Your task to perform on an android device: change the upload size in google photos Image 0: 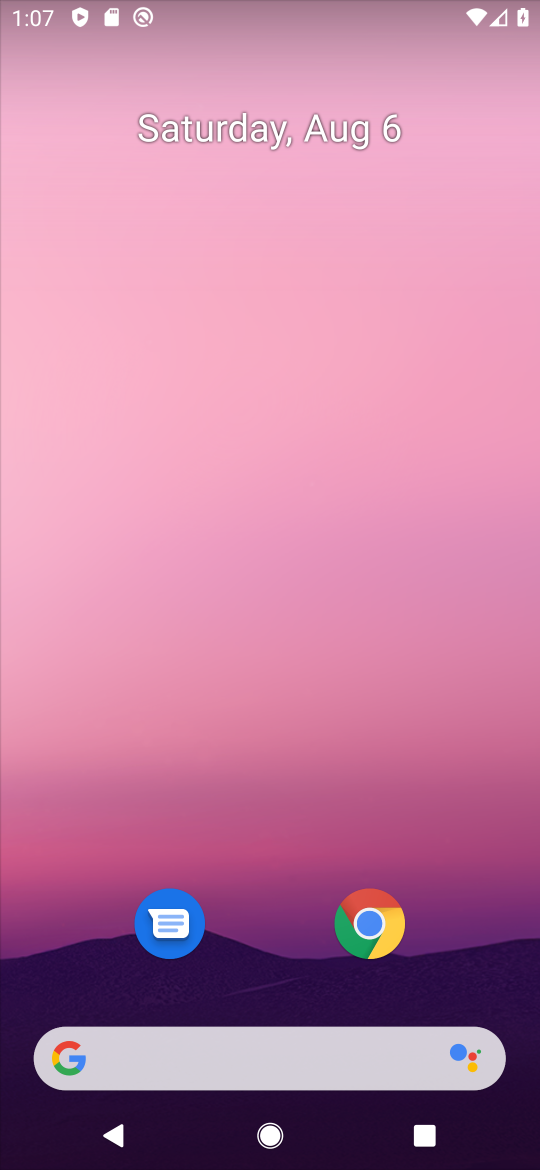
Step 0: drag from (261, 936) to (348, 280)
Your task to perform on an android device: change the upload size in google photos Image 1: 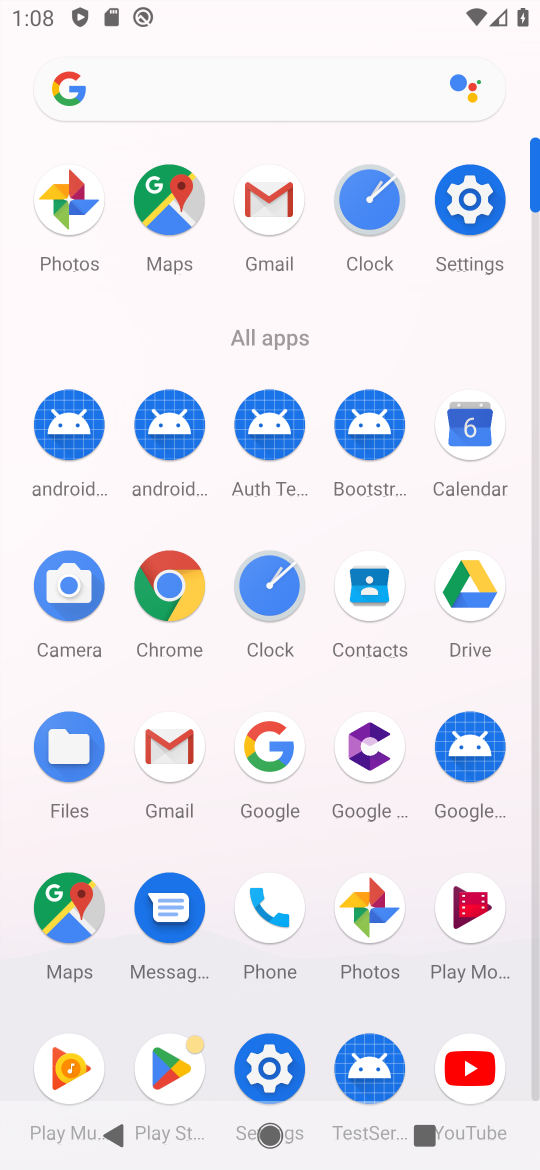
Step 1: click (384, 928)
Your task to perform on an android device: change the upload size in google photos Image 2: 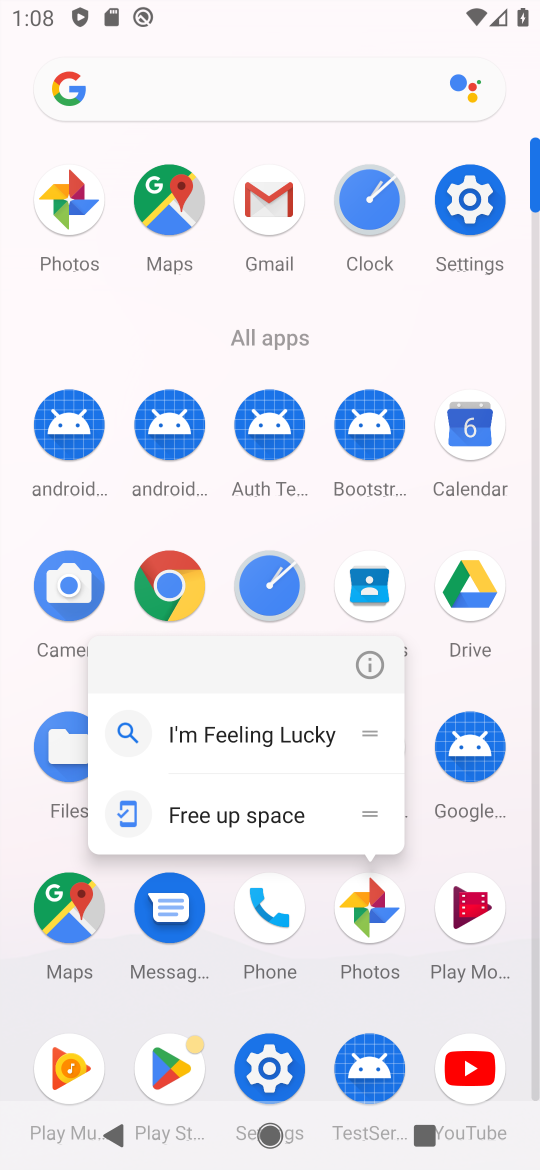
Step 2: click (358, 665)
Your task to perform on an android device: change the upload size in google photos Image 3: 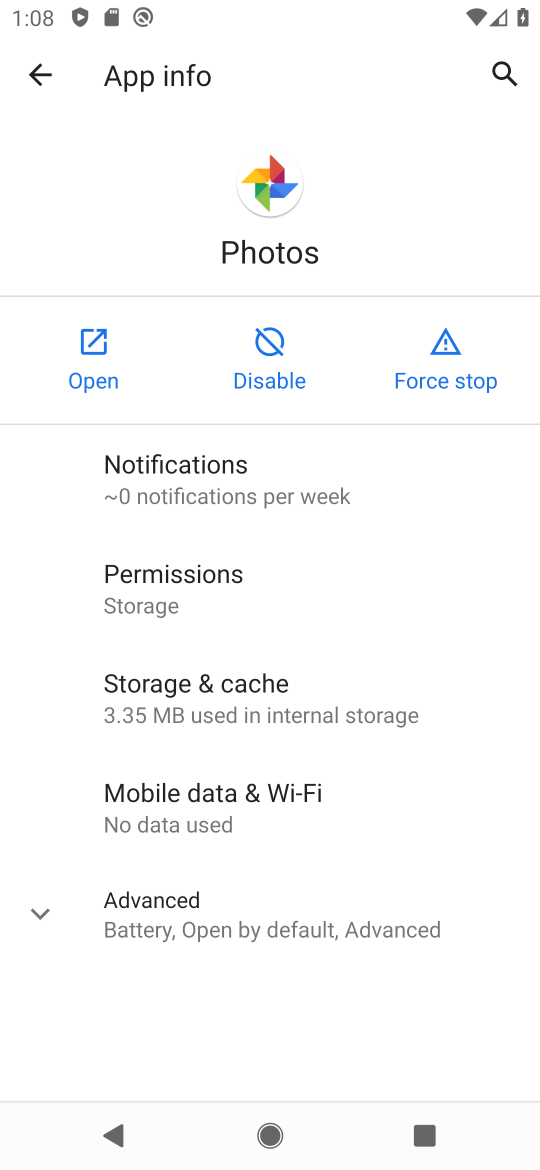
Step 3: click (98, 368)
Your task to perform on an android device: change the upload size in google photos Image 4: 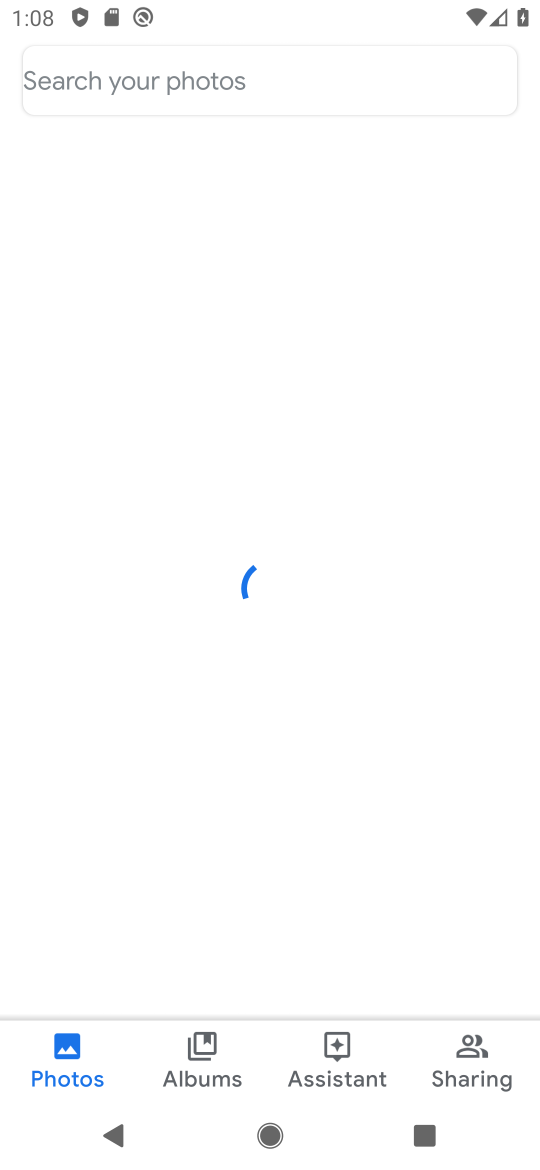
Step 4: drag from (276, 887) to (251, 431)
Your task to perform on an android device: change the upload size in google photos Image 5: 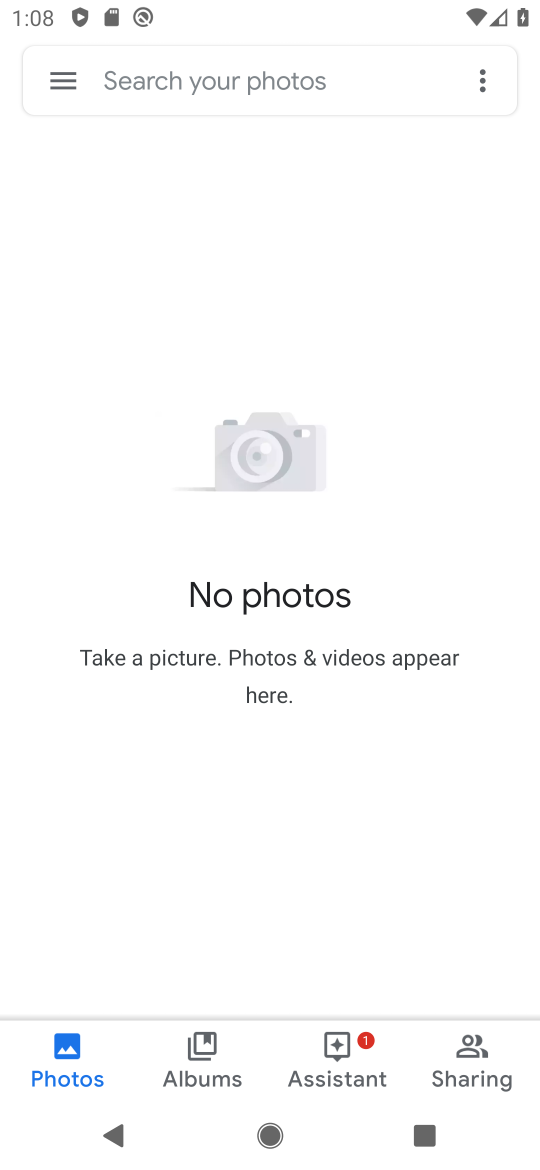
Step 5: drag from (283, 875) to (283, 624)
Your task to perform on an android device: change the upload size in google photos Image 6: 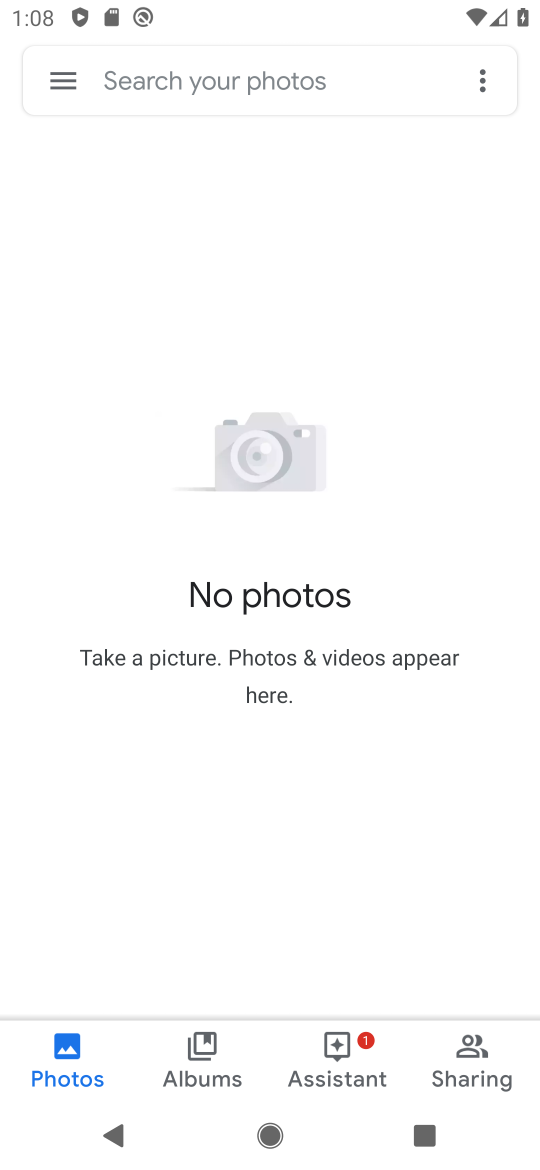
Step 6: click (55, 86)
Your task to perform on an android device: change the upload size in google photos Image 7: 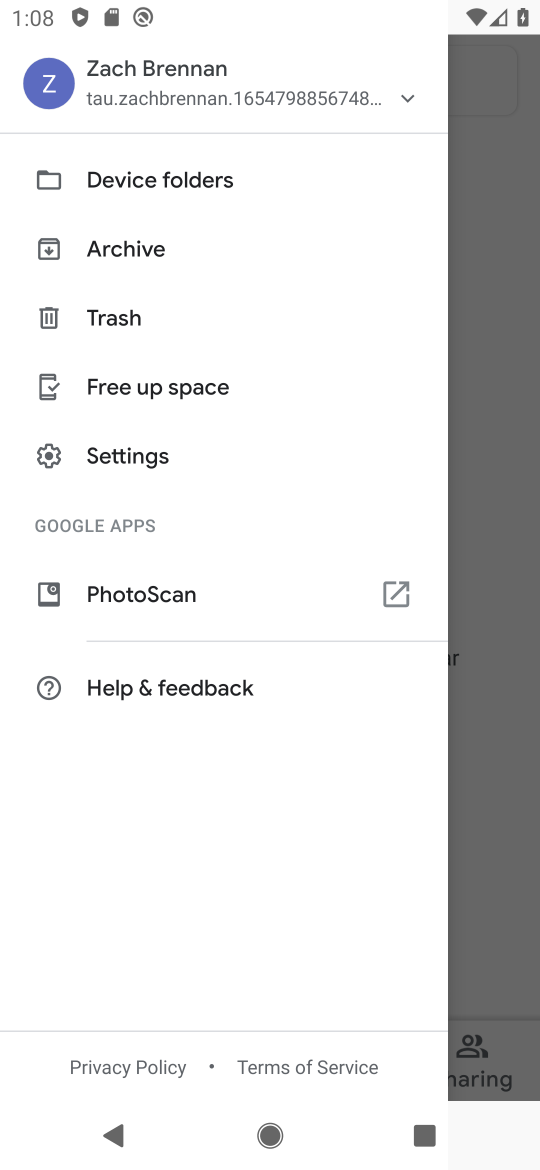
Step 7: click (122, 459)
Your task to perform on an android device: change the upload size in google photos Image 8: 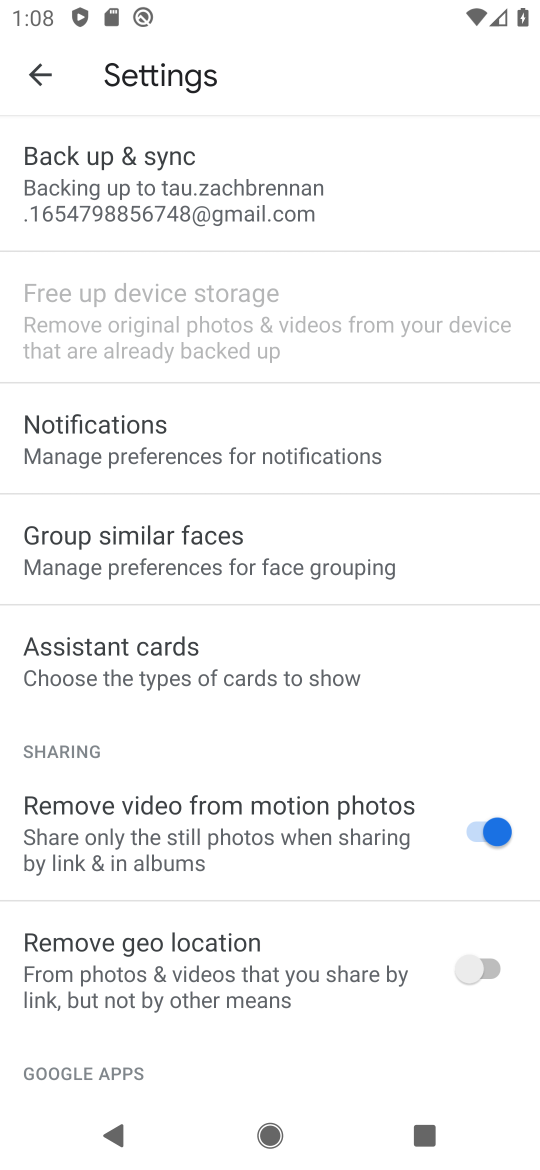
Step 8: click (111, 189)
Your task to perform on an android device: change the upload size in google photos Image 9: 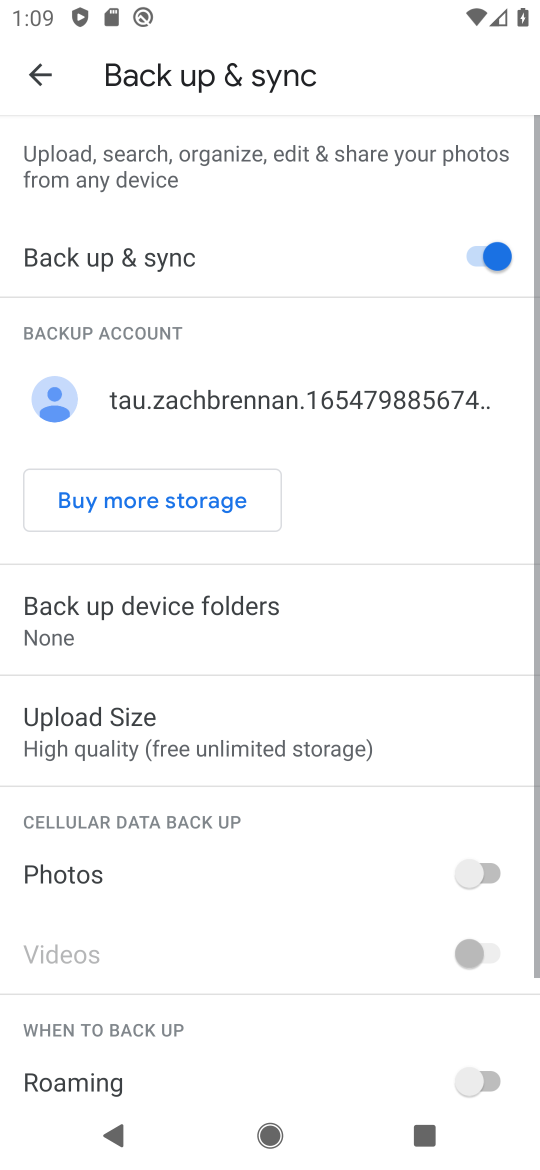
Step 9: click (187, 732)
Your task to perform on an android device: change the upload size in google photos Image 10: 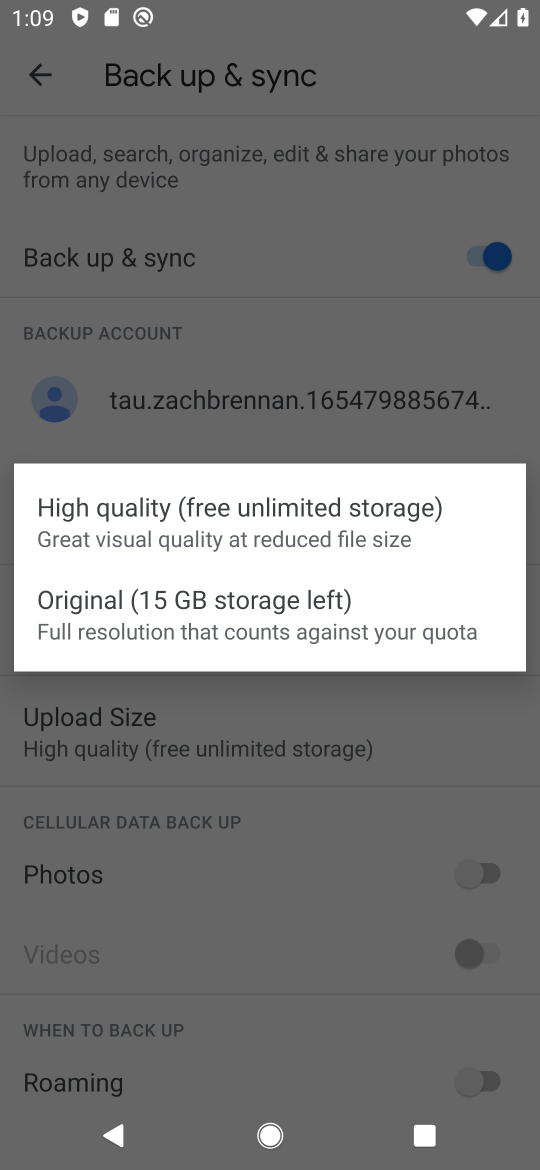
Step 10: click (122, 632)
Your task to perform on an android device: change the upload size in google photos Image 11: 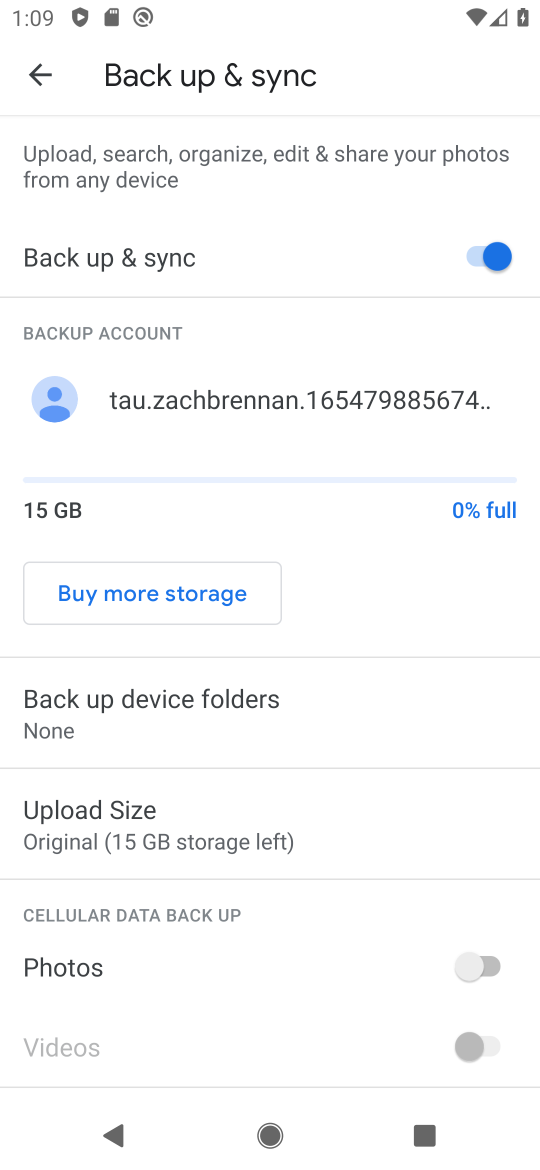
Step 11: task complete